Your task to perform on an android device: all mails in gmail Image 0: 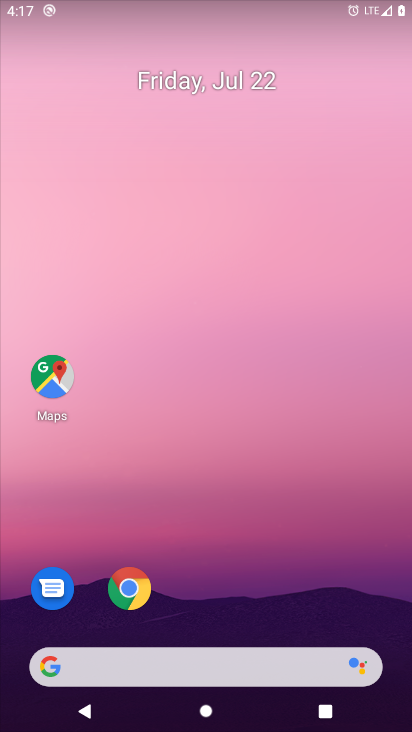
Step 0: drag from (310, 567) to (311, 59)
Your task to perform on an android device: all mails in gmail Image 1: 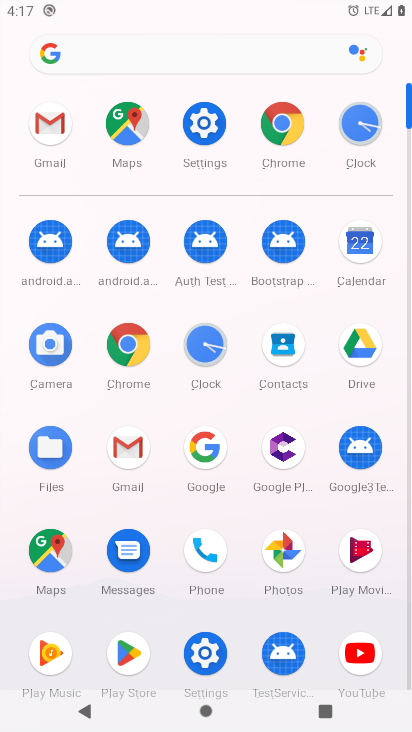
Step 1: click (125, 442)
Your task to perform on an android device: all mails in gmail Image 2: 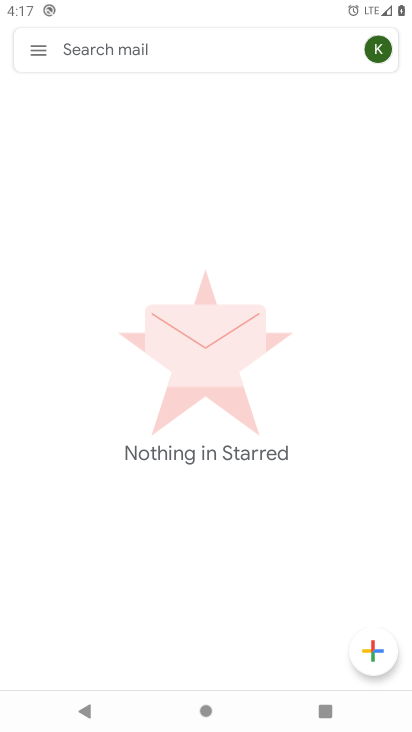
Step 2: click (43, 49)
Your task to perform on an android device: all mails in gmail Image 3: 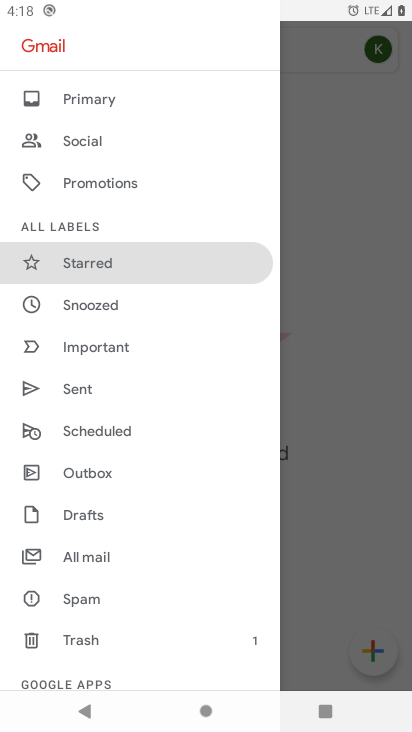
Step 3: click (84, 541)
Your task to perform on an android device: all mails in gmail Image 4: 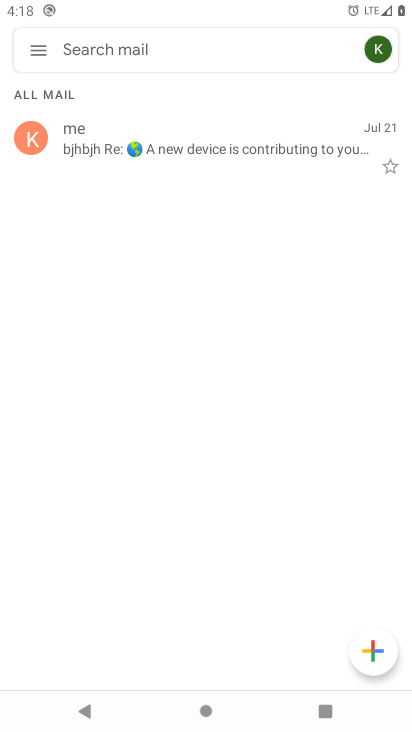
Step 4: task complete